Your task to perform on an android device: turn off improve location accuracy Image 0: 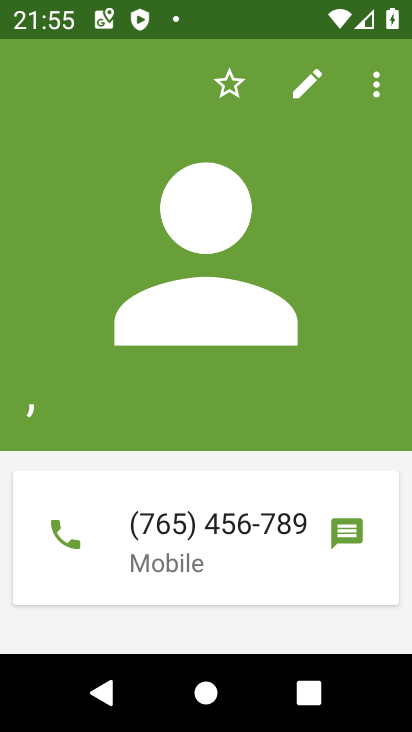
Step 0: press home button
Your task to perform on an android device: turn off improve location accuracy Image 1: 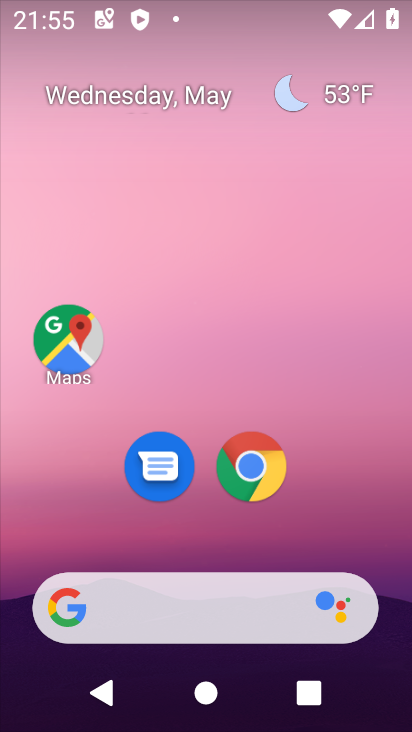
Step 1: drag from (217, 560) to (258, 437)
Your task to perform on an android device: turn off improve location accuracy Image 2: 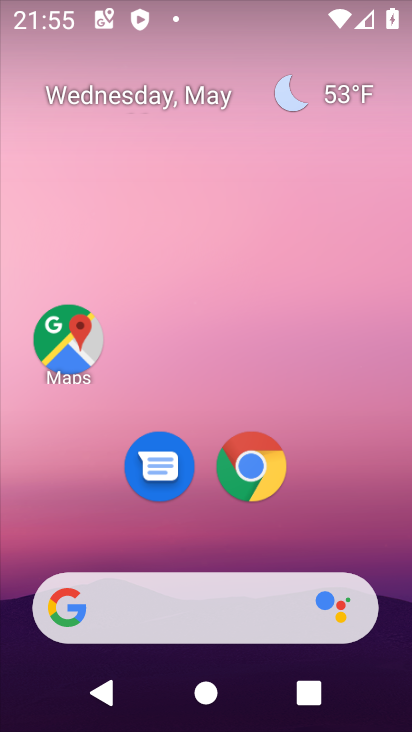
Step 2: drag from (232, 562) to (289, 90)
Your task to perform on an android device: turn off improve location accuracy Image 3: 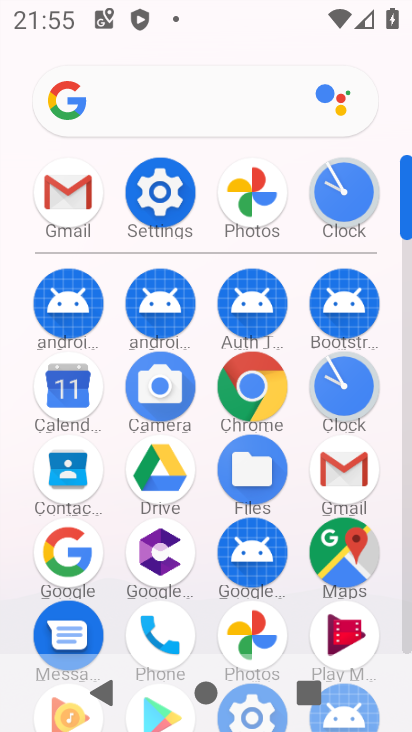
Step 3: click (178, 202)
Your task to perform on an android device: turn off improve location accuracy Image 4: 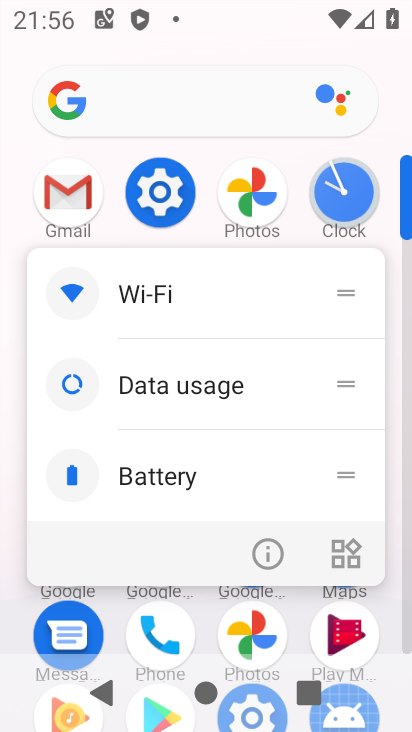
Step 4: click (270, 554)
Your task to perform on an android device: turn off improve location accuracy Image 5: 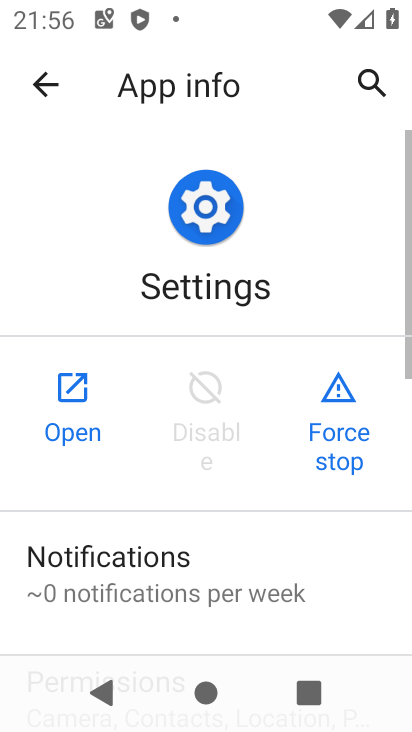
Step 5: click (80, 372)
Your task to perform on an android device: turn off improve location accuracy Image 6: 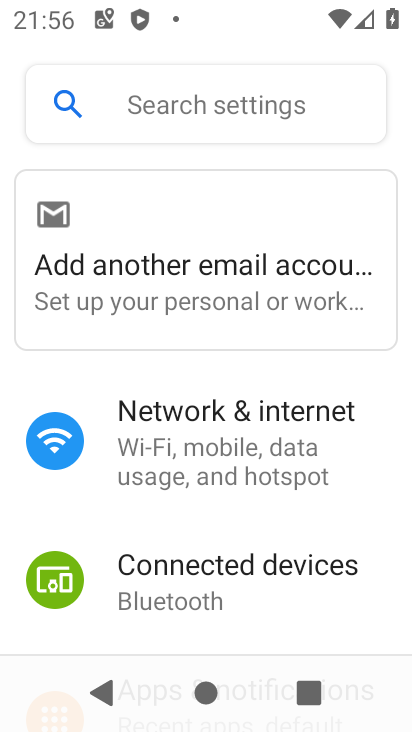
Step 6: drag from (185, 564) to (303, 63)
Your task to perform on an android device: turn off improve location accuracy Image 7: 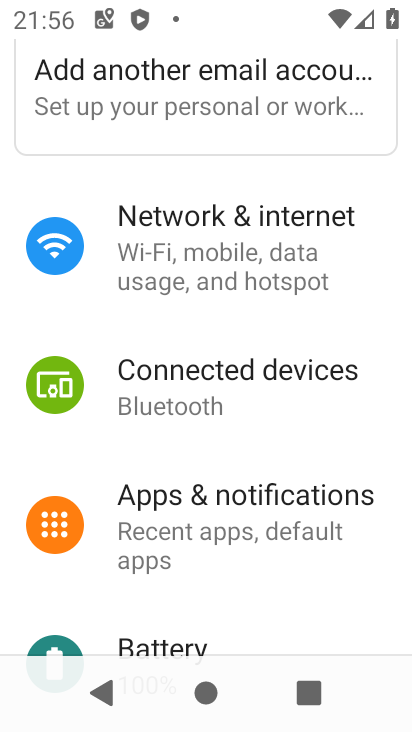
Step 7: drag from (205, 510) to (324, 5)
Your task to perform on an android device: turn off improve location accuracy Image 8: 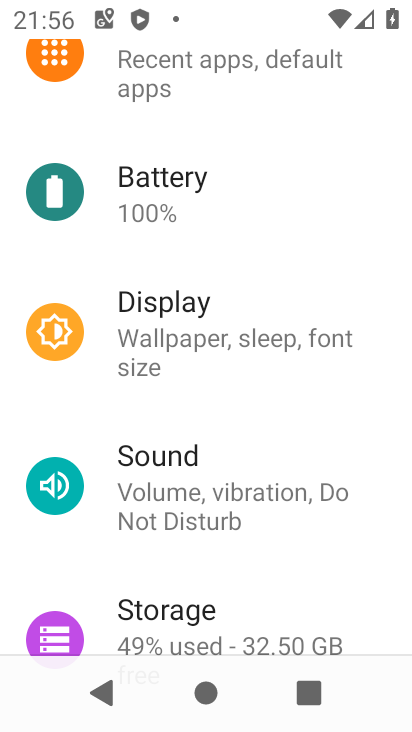
Step 8: drag from (203, 533) to (284, 106)
Your task to perform on an android device: turn off improve location accuracy Image 9: 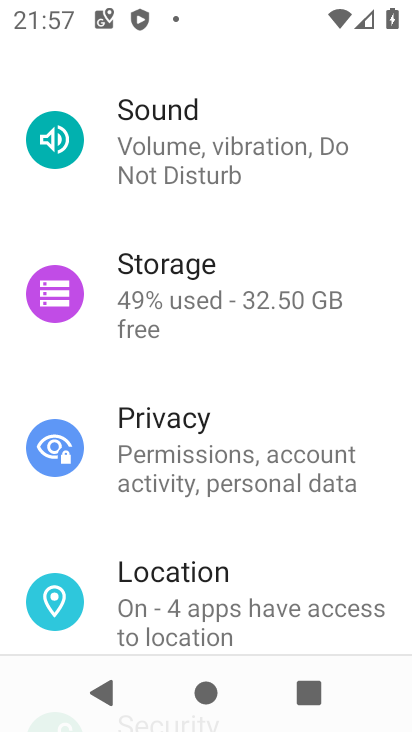
Step 9: drag from (183, 562) to (309, 177)
Your task to perform on an android device: turn off improve location accuracy Image 10: 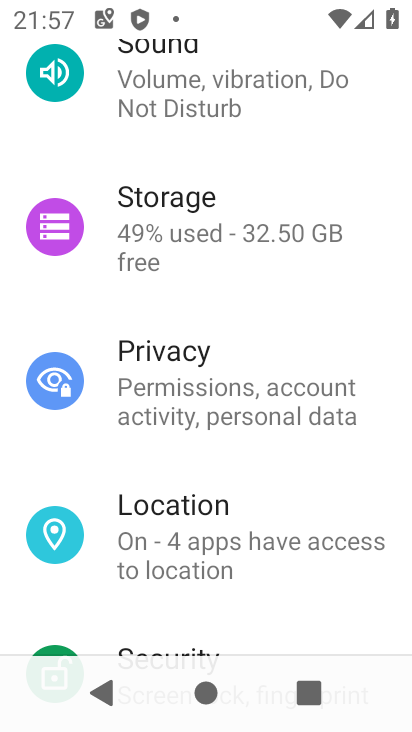
Step 10: drag from (237, 576) to (276, 237)
Your task to perform on an android device: turn off improve location accuracy Image 11: 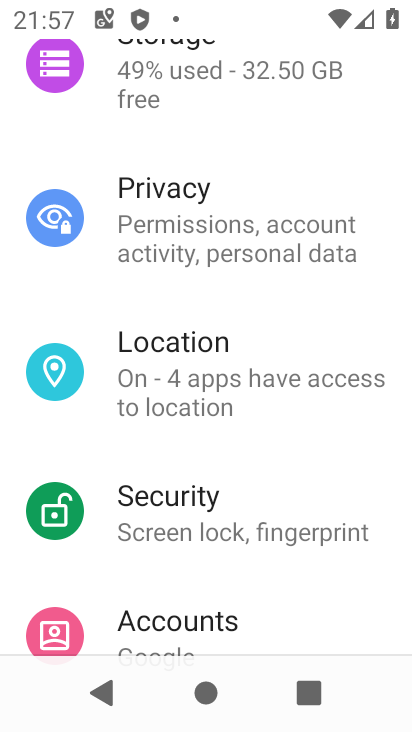
Step 11: drag from (244, 593) to (271, 423)
Your task to perform on an android device: turn off improve location accuracy Image 12: 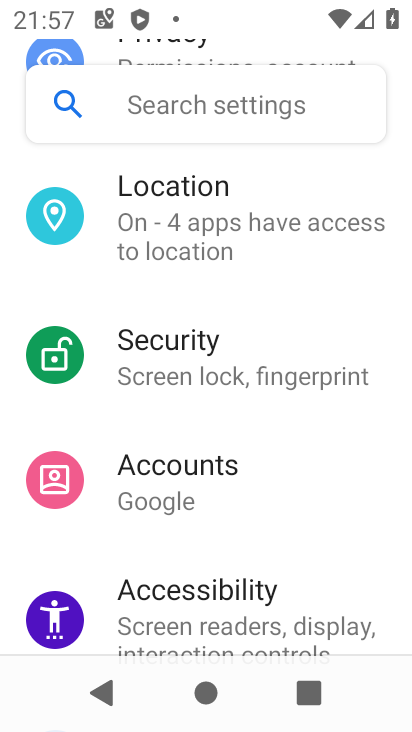
Step 12: click (232, 238)
Your task to perform on an android device: turn off improve location accuracy Image 13: 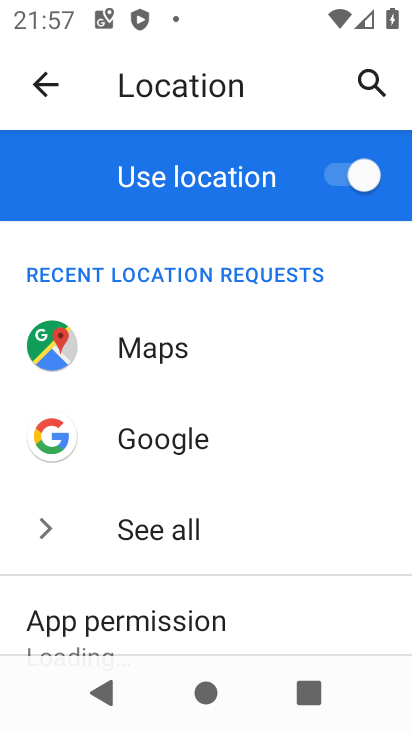
Step 13: drag from (221, 528) to (300, 225)
Your task to perform on an android device: turn off improve location accuracy Image 14: 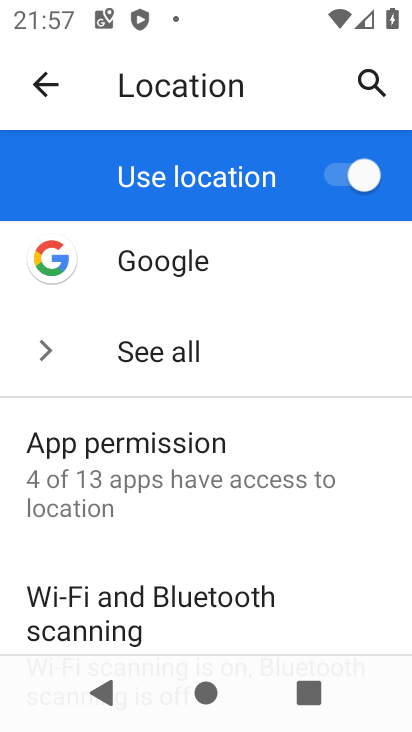
Step 14: drag from (180, 561) to (288, 227)
Your task to perform on an android device: turn off improve location accuracy Image 15: 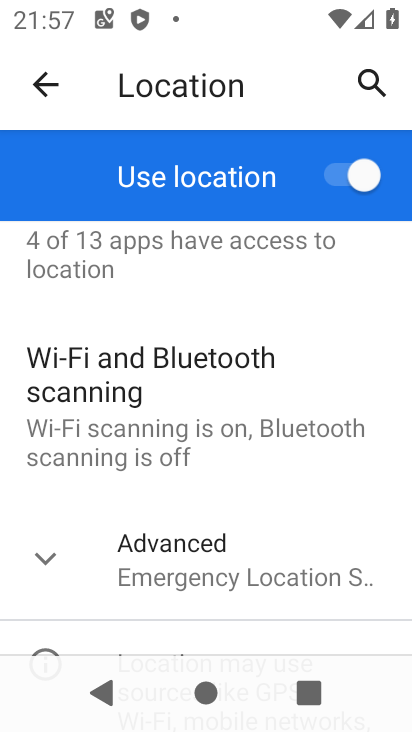
Step 15: drag from (235, 584) to (267, 232)
Your task to perform on an android device: turn off improve location accuracy Image 16: 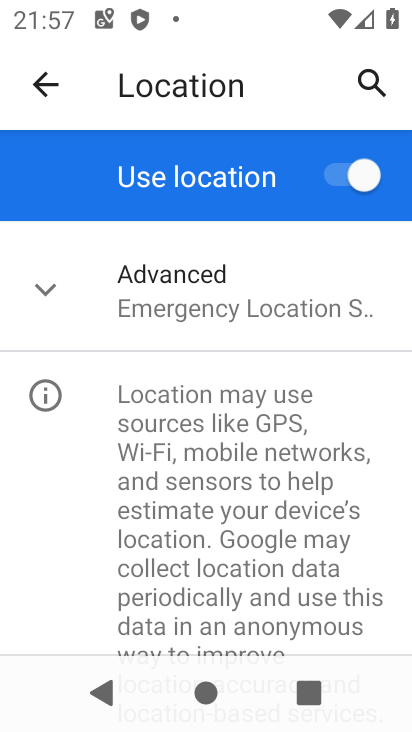
Step 16: click (179, 468)
Your task to perform on an android device: turn off improve location accuracy Image 17: 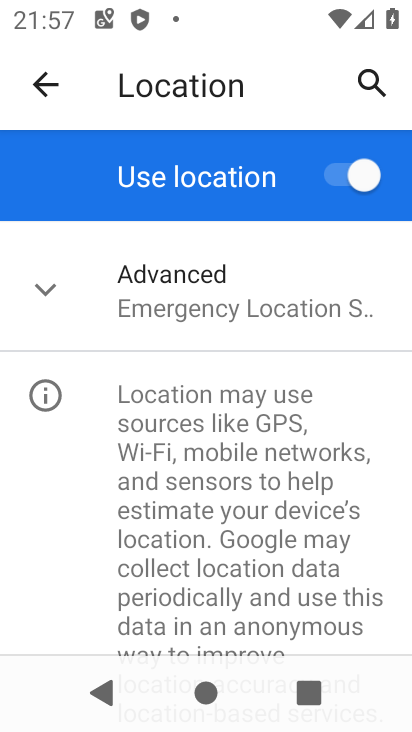
Step 17: drag from (233, 610) to (279, 551)
Your task to perform on an android device: turn off improve location accuracy Image 18: 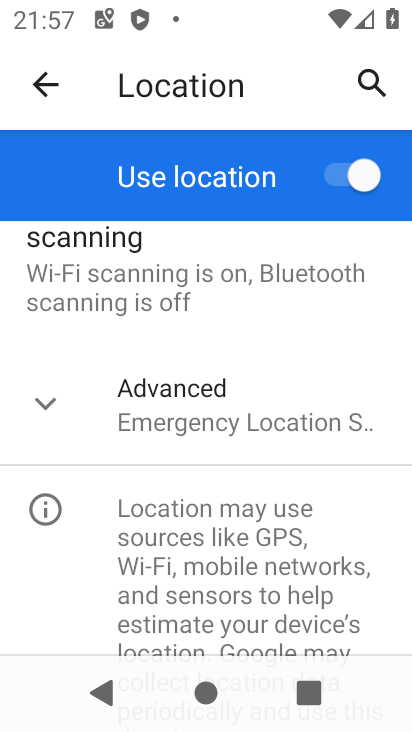
Step 18: click (186, 390)
Your task to perform on an android device: turn off improve location accuracy Image 19: 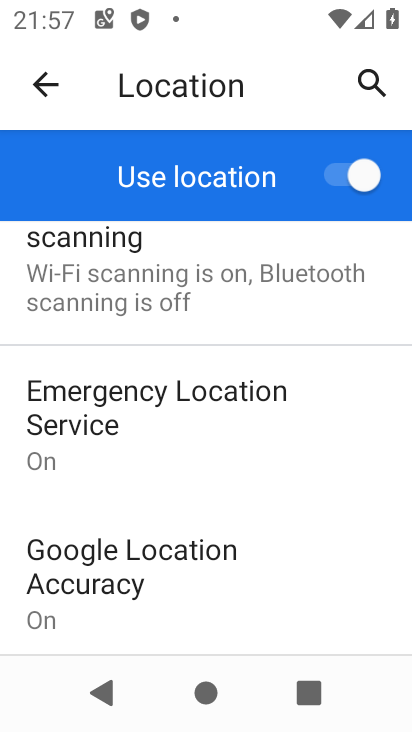
Step 19: drag from (177, 593) to (241, 365)
Your task to perform on an android device: turn off improve location accuracy Image 20: 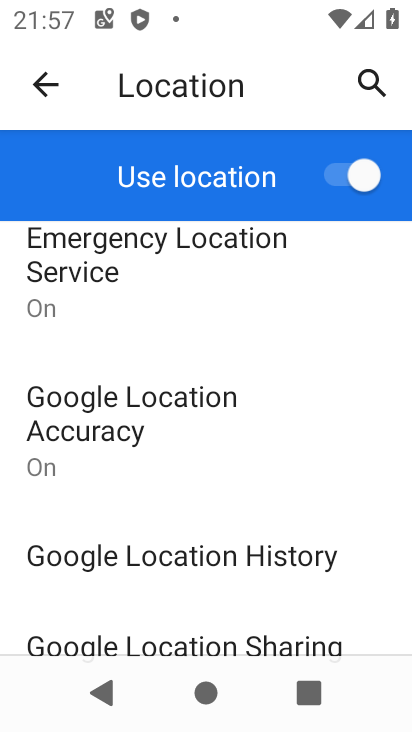
Step 20: click (152, 414)
Your task to perform on an android device: turn off improve location accuracy Image 21: 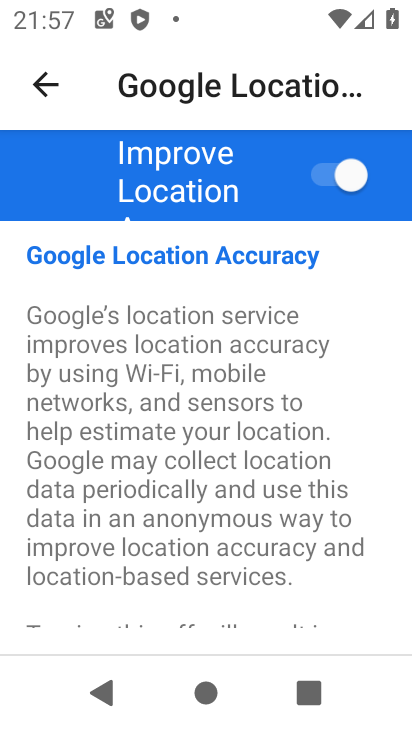
Step 21: click (335, 161)
Your task to perform on an android device: turn off improve location accuracy Image 22: 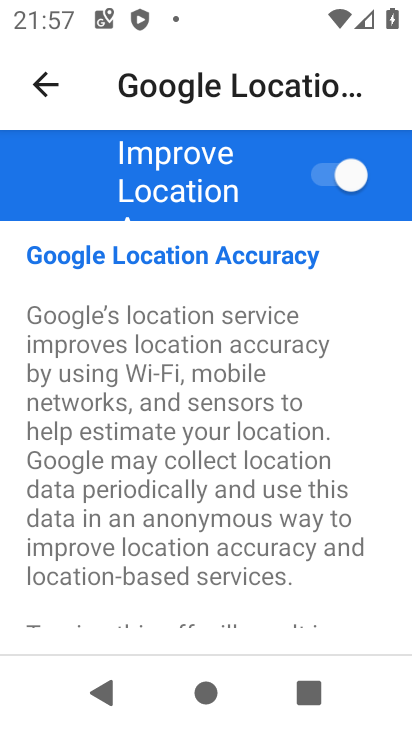
Step 22: task complete